Your task to perform on an android device: turn smart compose on in the gmail app Image 0: 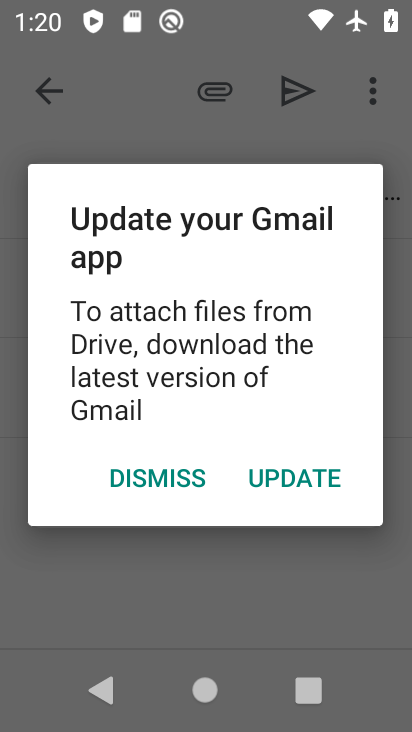
Step 0: press home button
Your task to perform on an android device: turn smart compose on in the gmail app Image 1: 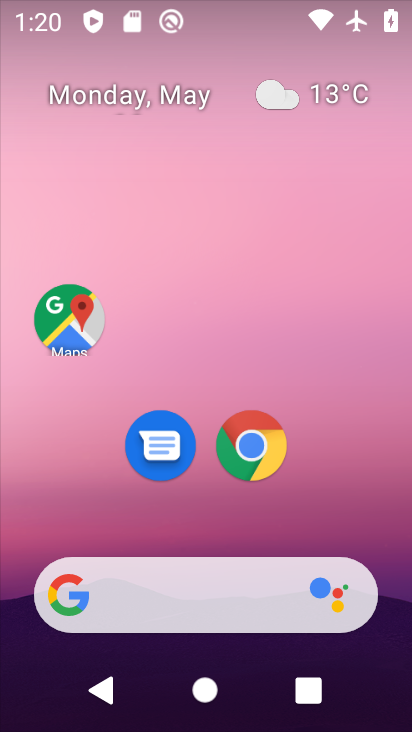
Step 1: drag from (401, 618) to (302, 38)
Your task to perform on an android device: turn smart compose on in the gmail app Image 2: 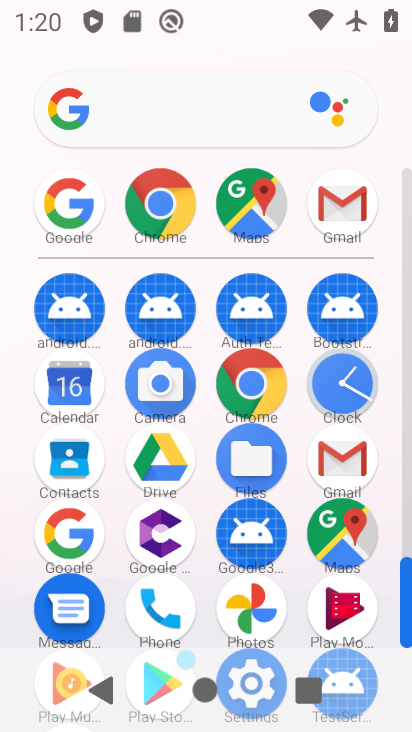
Step 2: click (357, 473)
Your task to perform on an android device: turn smart compose on in the gmail app Image 3: 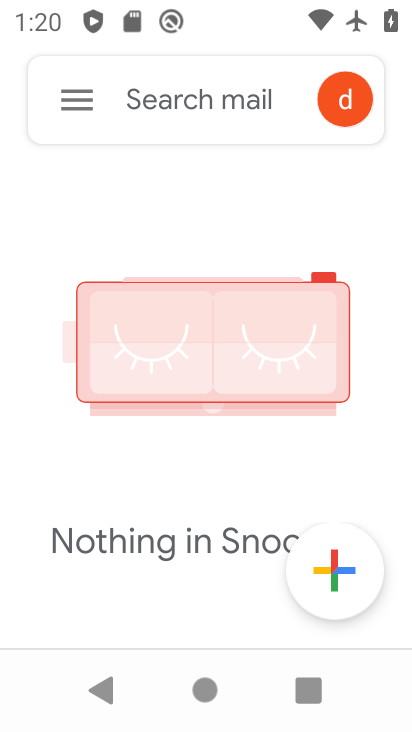
Step 3: click (64, 99)
Your task to perform on an android device: turn smart compose on in the gmail app Image 4: 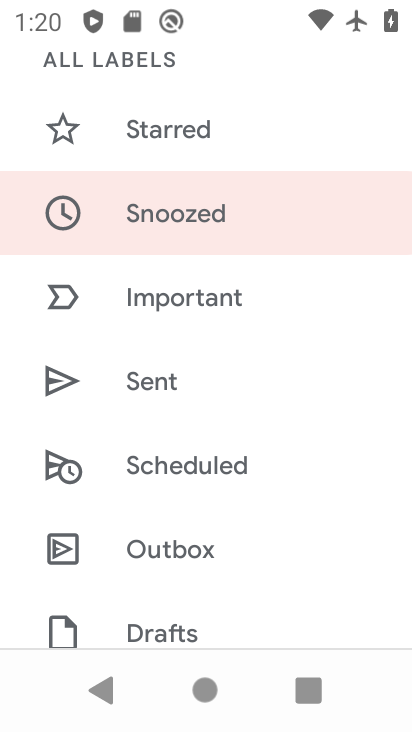
Step 4: drag from (198, 615) to (235, 142)
Your task to perform on an android device: turn smart compose on in the gmail app Image 5: 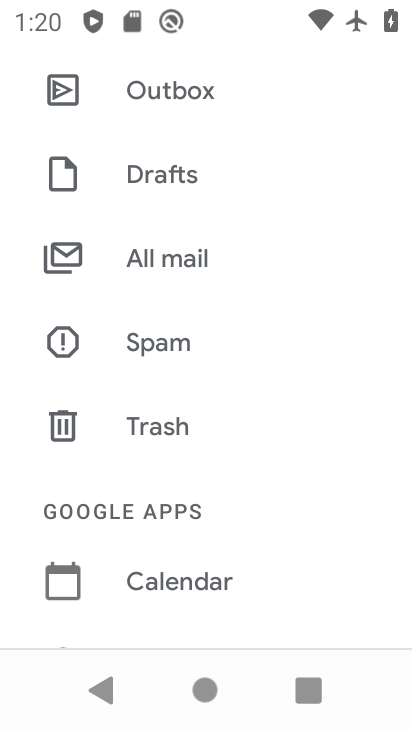
Step 5: drag from (221, 578) to (265, 133)
Your task to perform on an android device: turn smart compose on in the gmail app Image 6: 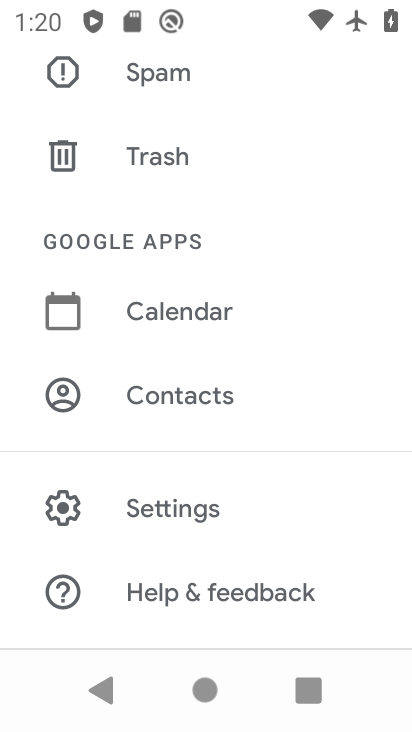
Step 6: click (136, 518)
Your task to perform on an android device: turn smart compose on in the gmail app Image 7: 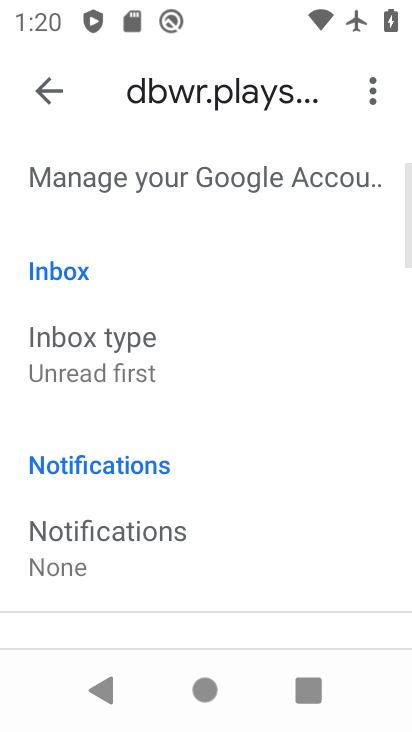
Step 7: task complete